Your task to perform on an android device: Open my contact list Image 0: 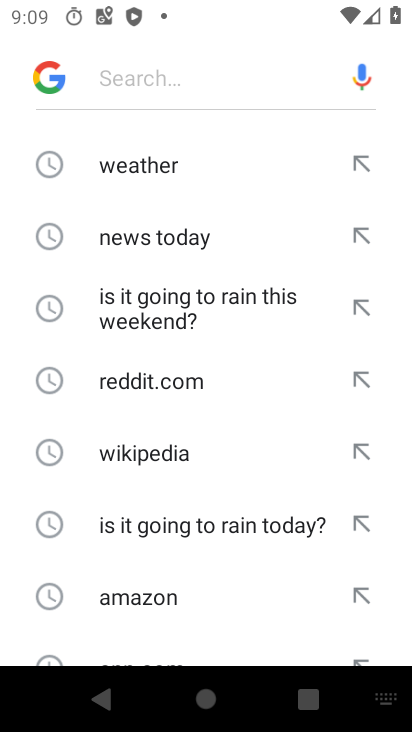
Step 0: press home button
Your task to perform on an android device: Open my contact list Image 1: 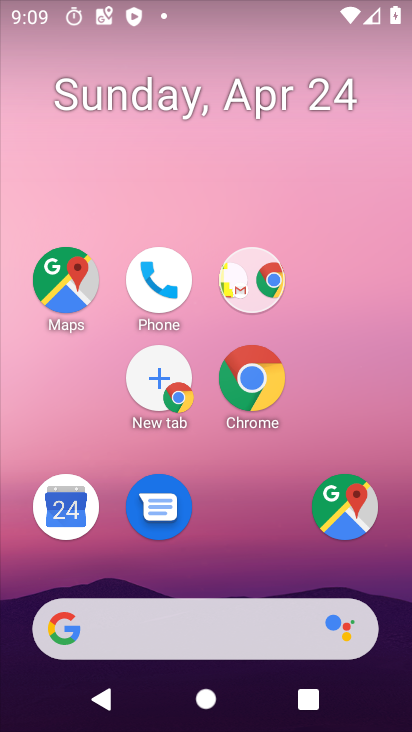
Step 1: drag from (250, 464) to (195, 7)
Your task to perform on an android device: Open my contact list Image 2: 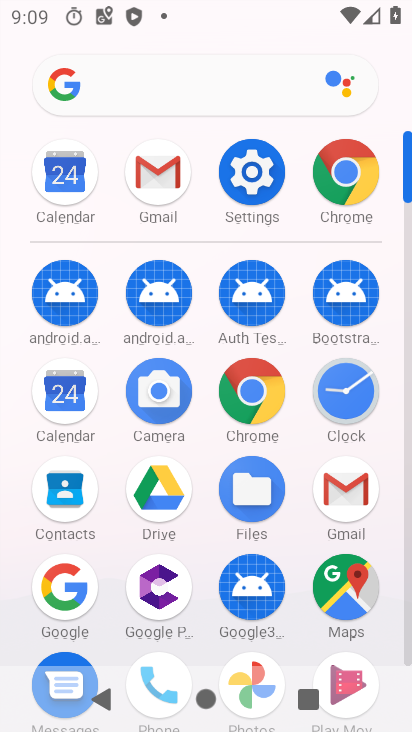
Step 2: drag from (67, 494) to (51, 453)
Your task to perform on an android device: Open my contact list Image 3: 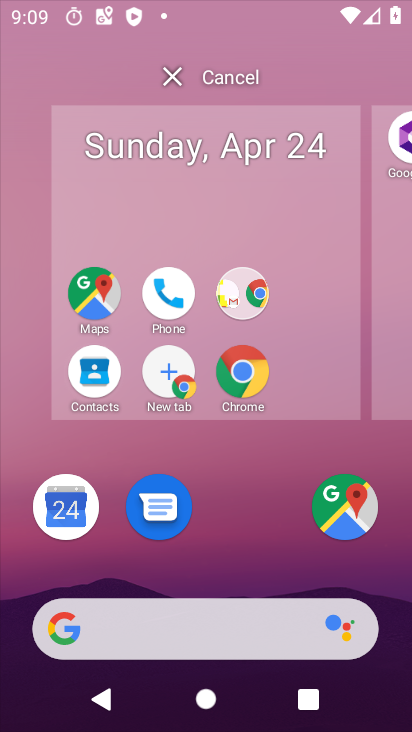
Step 3: drag from (245, 711) to (142, 70)
Your task to perform on an android device: Open my contact list Image 4: 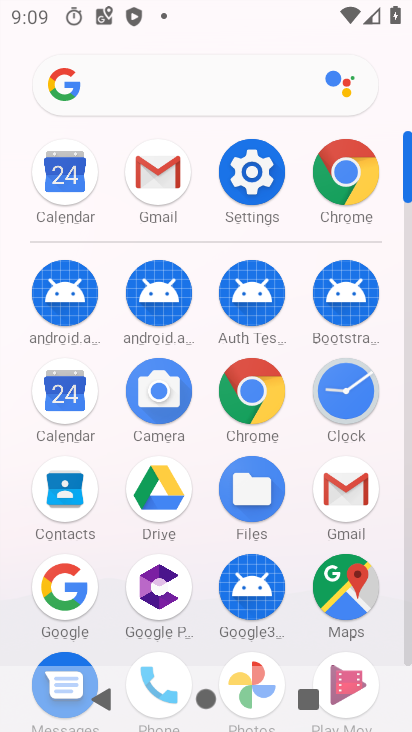
Step 4: click (71, 482)
Your task to perform on an android device: Open my contact list Image 5: 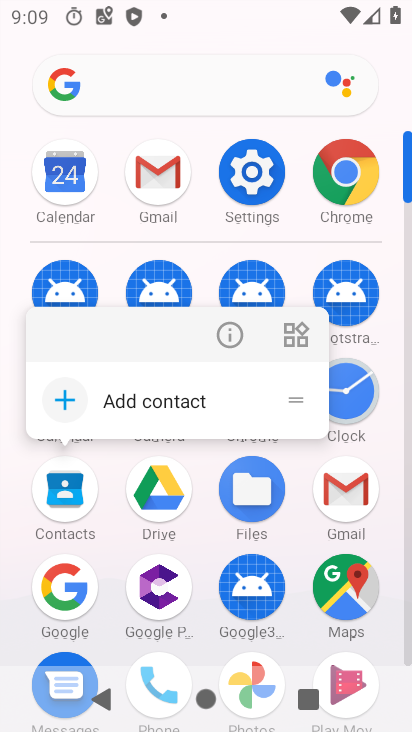
Step 5: task complete